Your task to perform on an android device: turn off notifications in google photos Image 0: 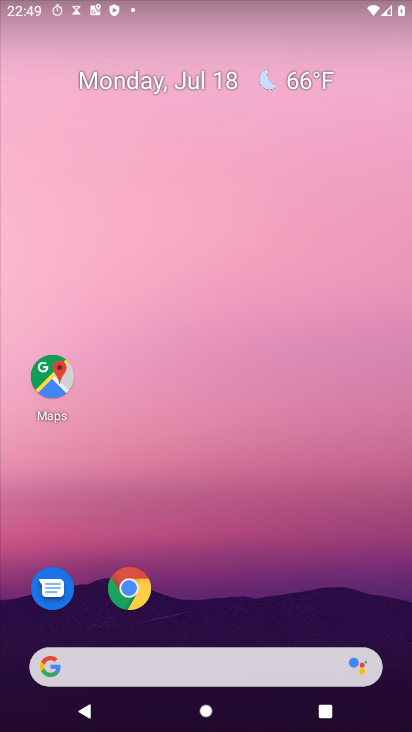
Step 0: press home button
Your task to perform on an android device: turn off notifications in google photos Image 1: 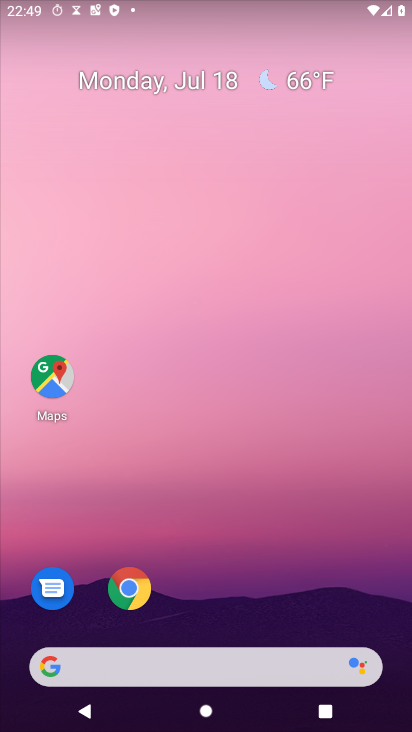
Step 1: drag from (186, 671) to (231, 203)
Your task to perform on an android device: turn off notifications in google photos Image 2: 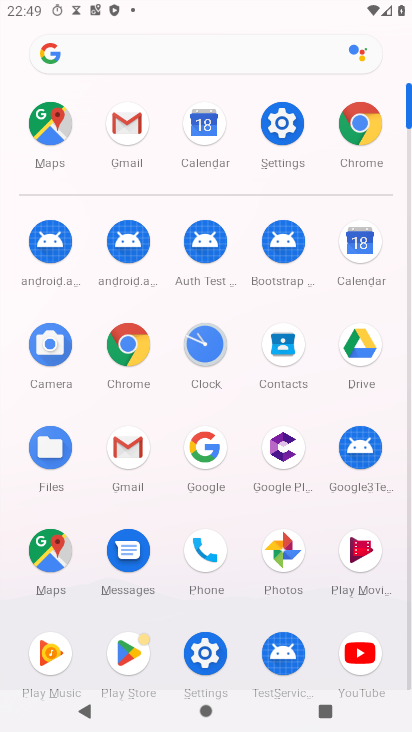
Step 2: click (278, 550)
Your task to perform on an android device: turn off notifications in google photos Image 3: 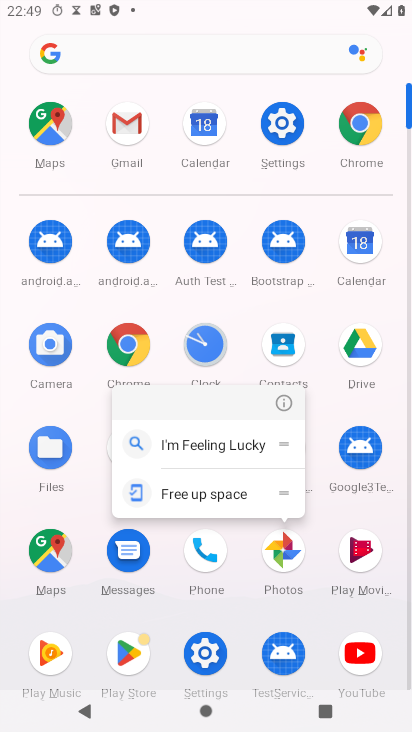
Step 3: click (285, 548)
Your task to perform on an android device: turn off notifications in google photos Image 4: 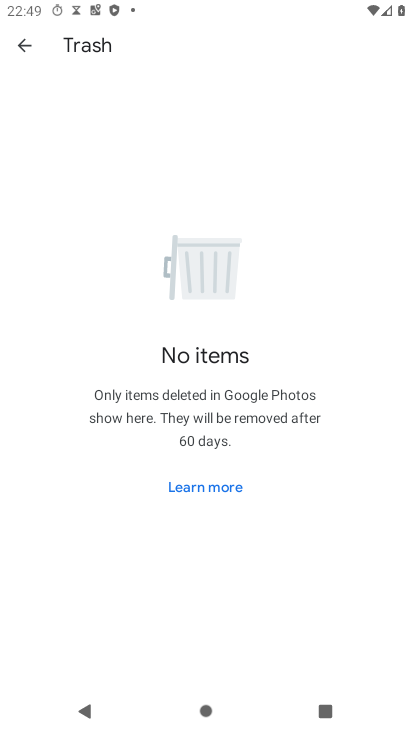
Step 4: click (22, 38)
Your task to perform on an android device: turn off notifications in google photos Image 5: 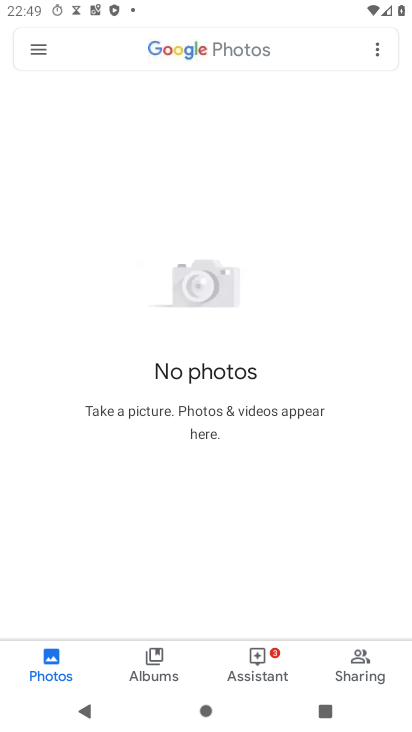
Step 5: click (37, 46)
Your task to perform on an android device: turn off notifications in google photos Image 6: 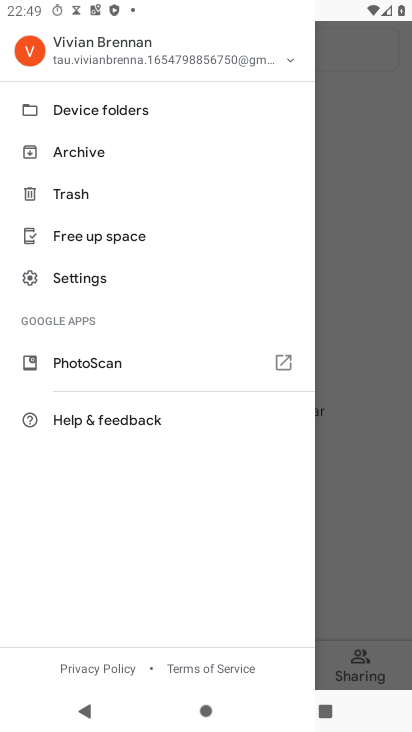
Step 6: click (87, 282)
Your task to perform on an android device: turn off notifications in google photos Image 7: 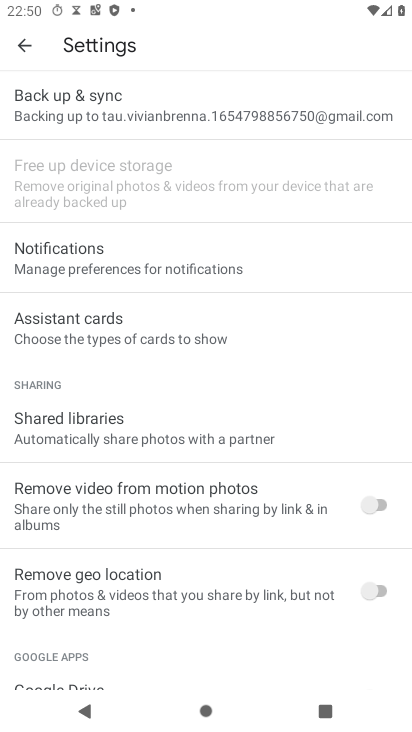
Step 7: click (132, 262)
Your task to perform on an android device: turn off notifications in google photos Image 8: 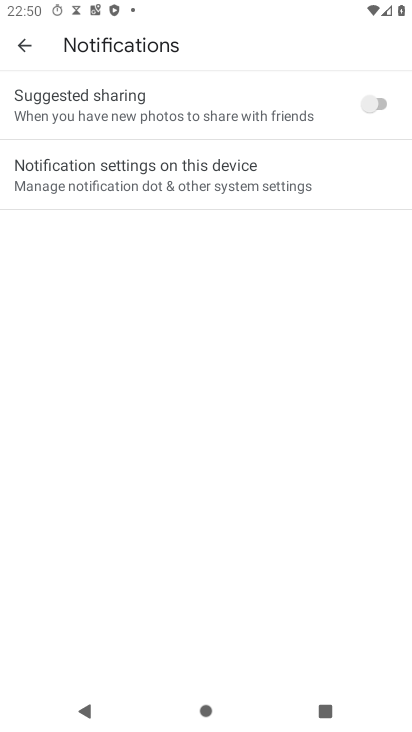
Step 8: click (167, 175)
Your task to perform on an android device: turn off notifications in google photos Image 9: 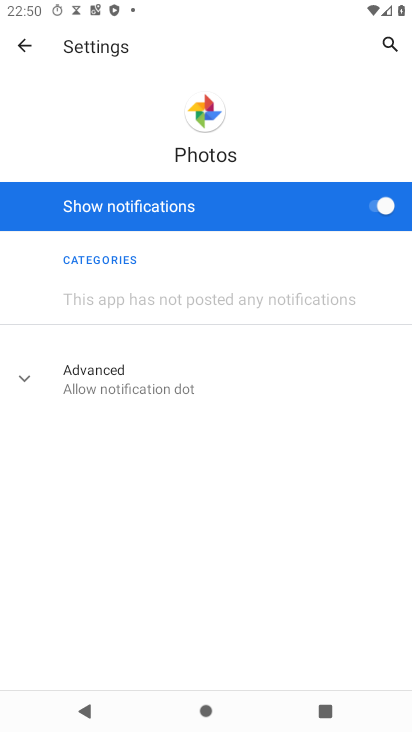
Step 9: click (370, 208)
Your task to perform on an android device: turn off notifications in google photos Image 10: 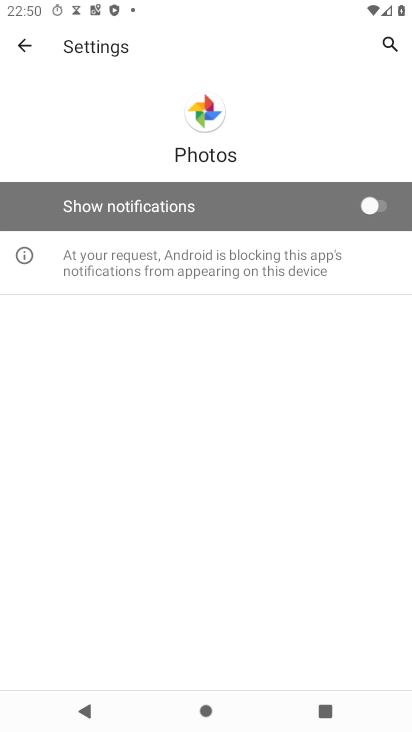
Step 10: task complete